Your task to perform on an android device: Go to notification settings Image 0: 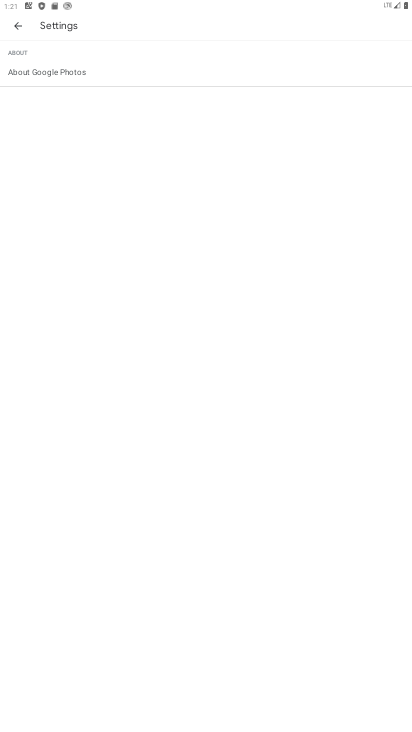
Step 0: press home button
Your task to perform on an android device: Go to notification settings Image 1: 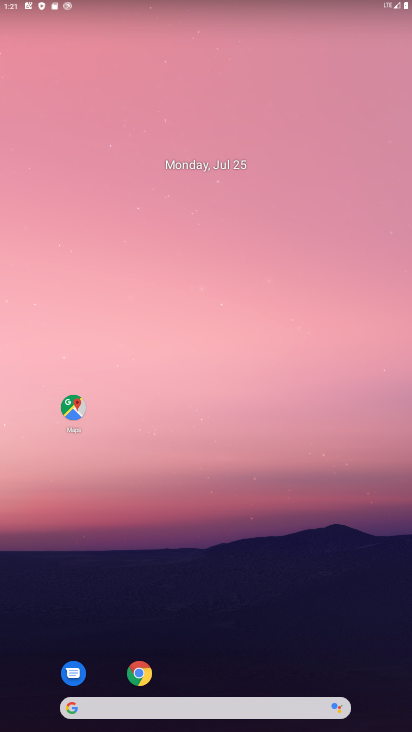
Step 1: drag from (362, 665) to (339, 146)
Your task to perform on an android device: Go to notification settings Image 2: 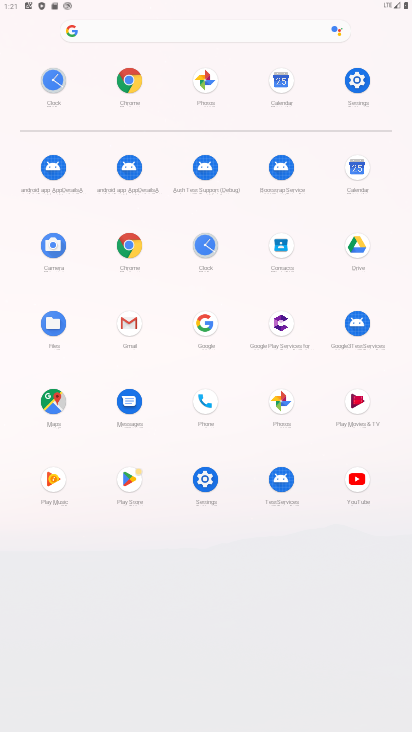
Step 2: click (207, 481)
Your task to perform on an android device: Go to notification settings Image 3: 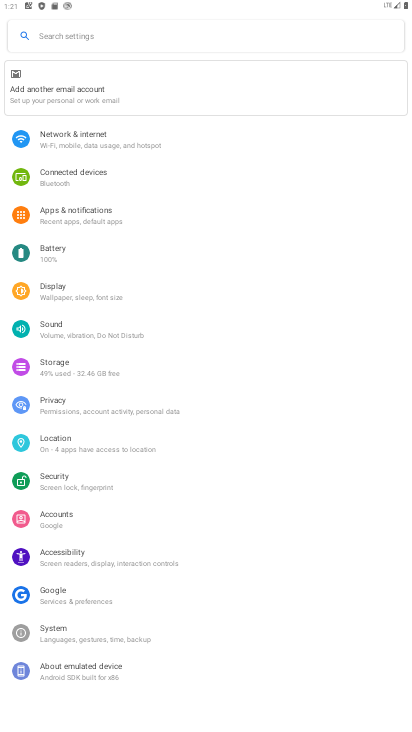
Step 3: click (59, 210)
Your task to perform on an android device: Go to notification settings Image 4: 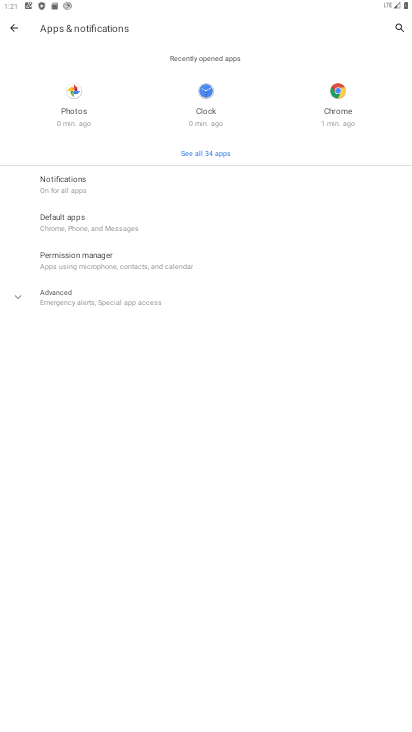
Step 4: click (47, 178)
Your task to perform on an android device: Go to notification settings Image 5: 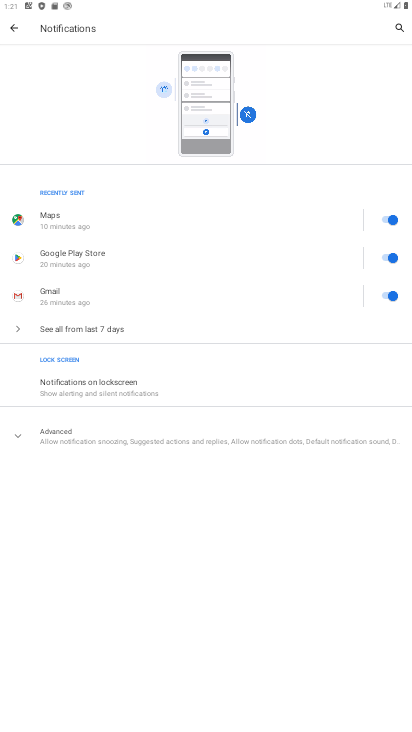
Step 5: click (15, 436)
Your task to perform on an android device: Go to notification settings Image 6: 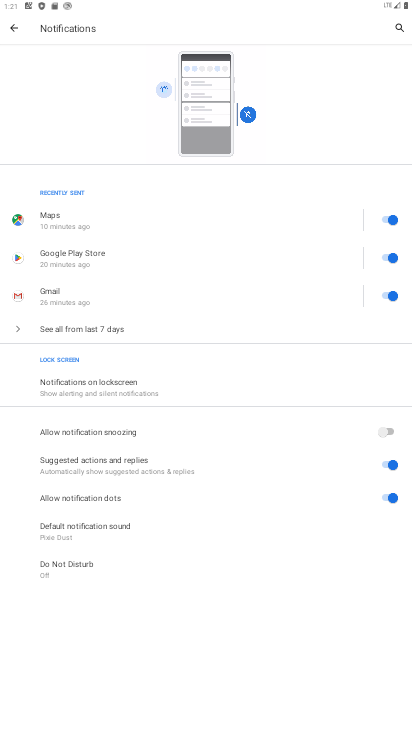
Step 6: task complete